Your task to perform on an android device: Show me some nice wallpapers for my desktop Image 0: 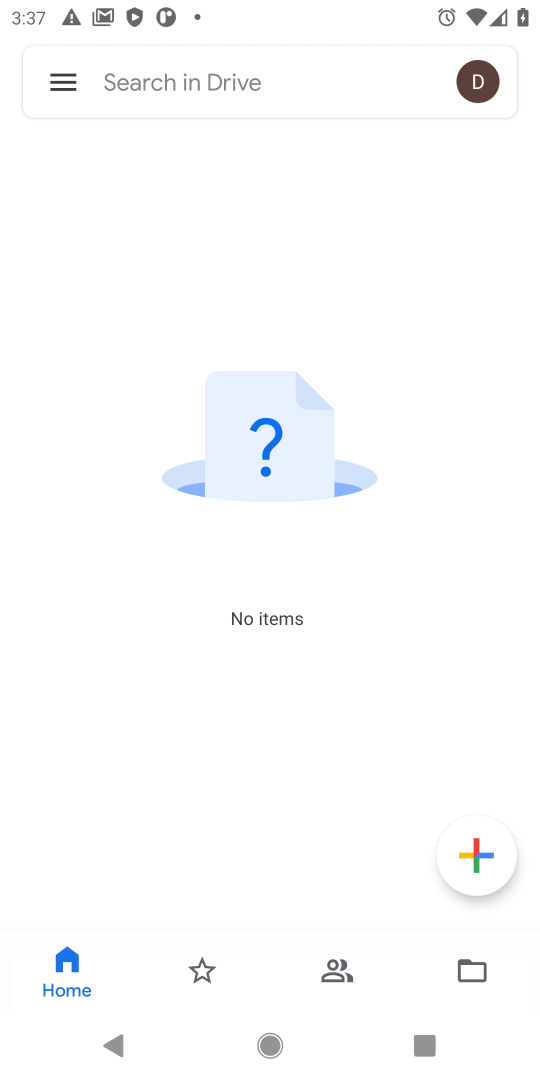
Step 0: press home button
Your task to perform on an android device: Show me some nice wallpapers for my desktop Image 1: 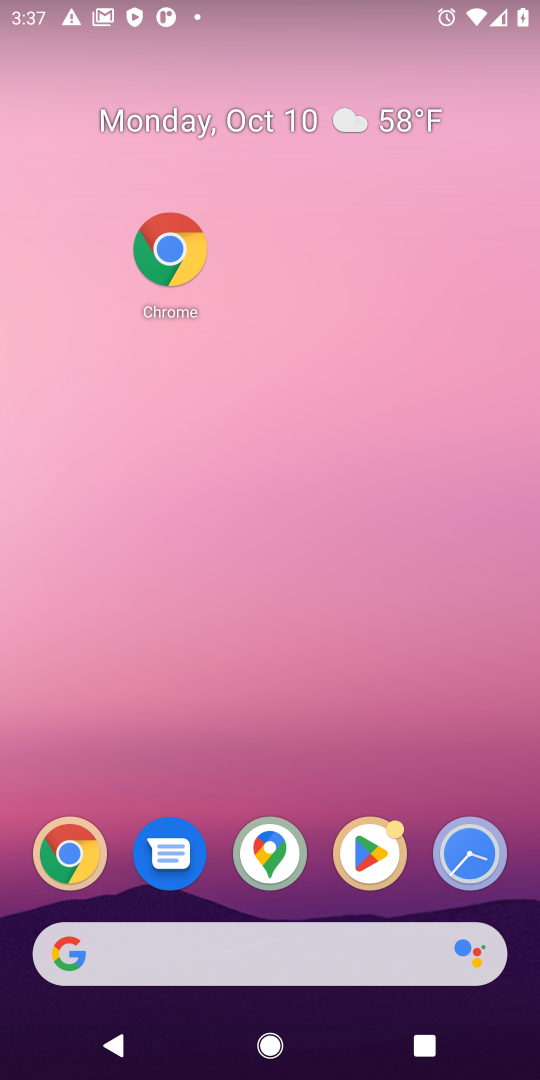
Step 1: click (52, 852)
Your task to perform on an android device: Show me some nice wallpapers for my desktop Image 2: 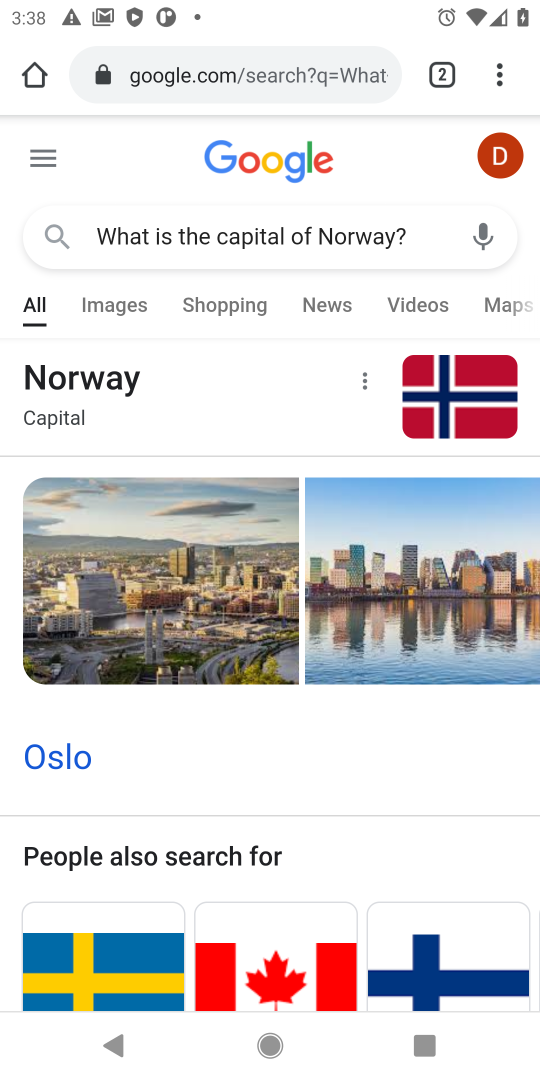
Step 2: click (279, 52)
Your task to perform on an android device: Show me some nice wallpapers for my desktop Image 3: 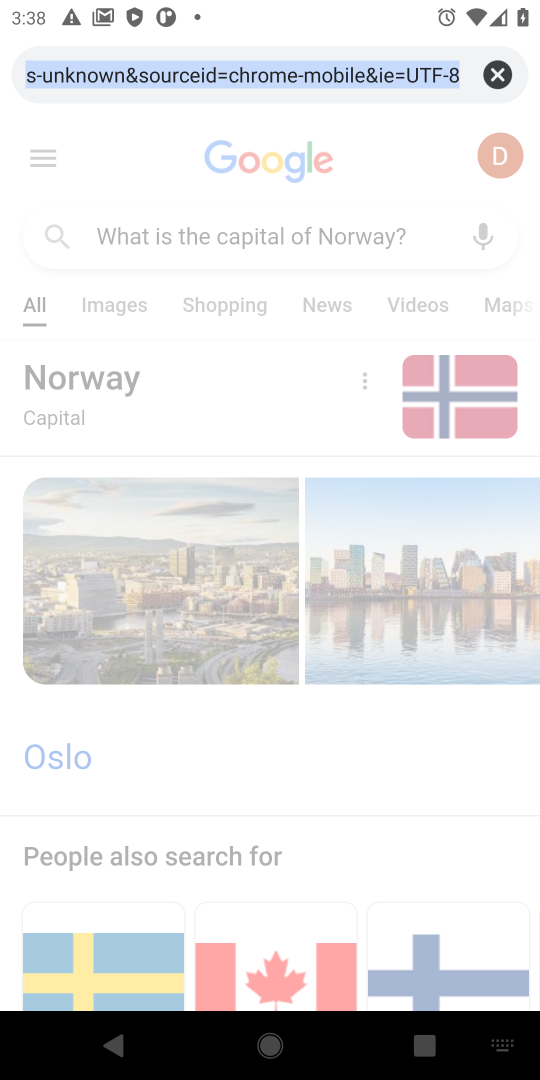
Step 3: type "Show me some nice wallpapers for my desktop"
Your task to perform on an android device: Show me some nice wallpapers for my desktop Image 4: 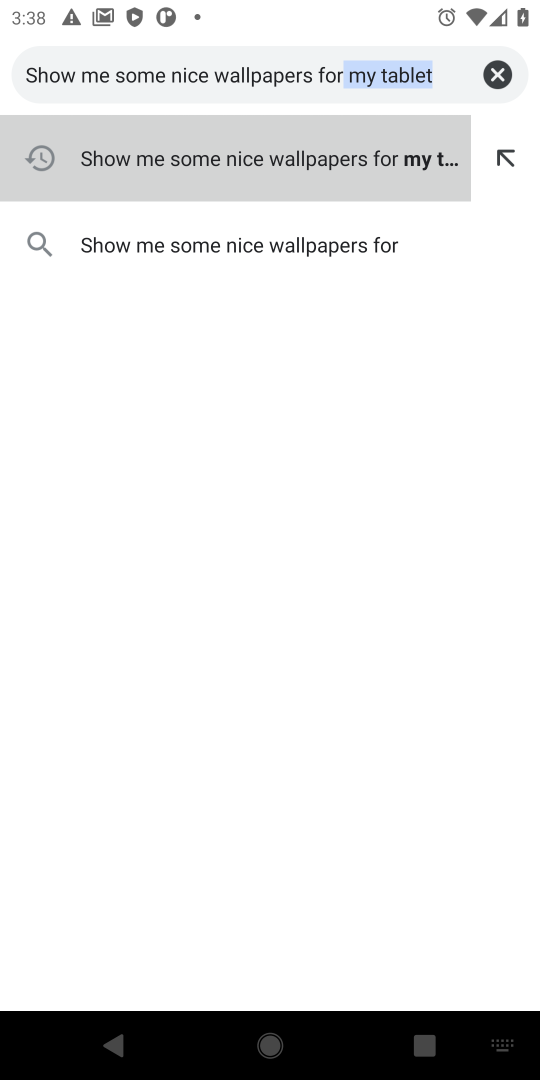
Step 4: type "desktop"
Your task to perform on an android device: Show me some nice wallpapers for my desktop Image 5: 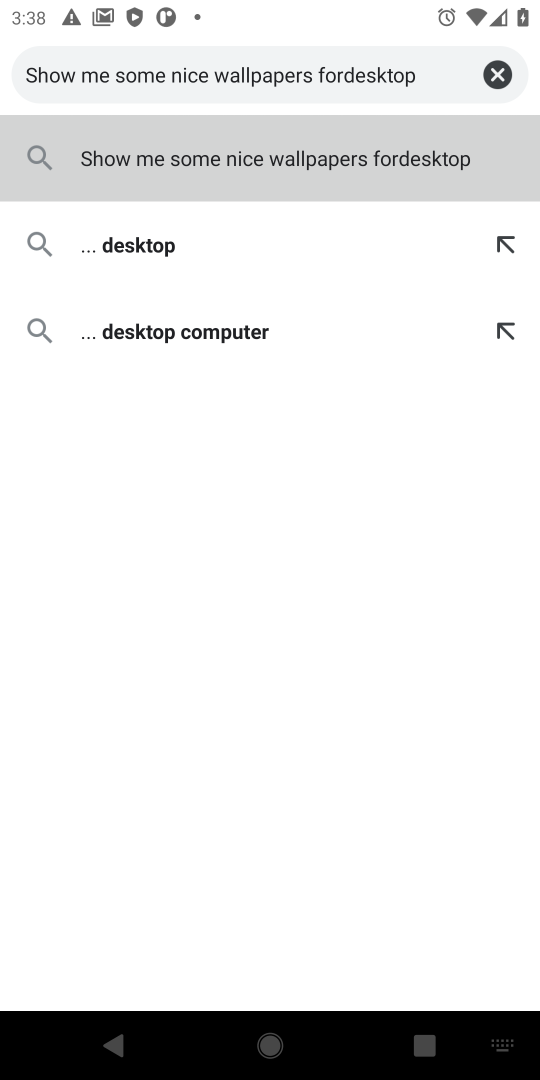
Step 5: click (293, 146)
Your task to perform on an android device: Show me some nice wallpapers for my desktop Image 6: 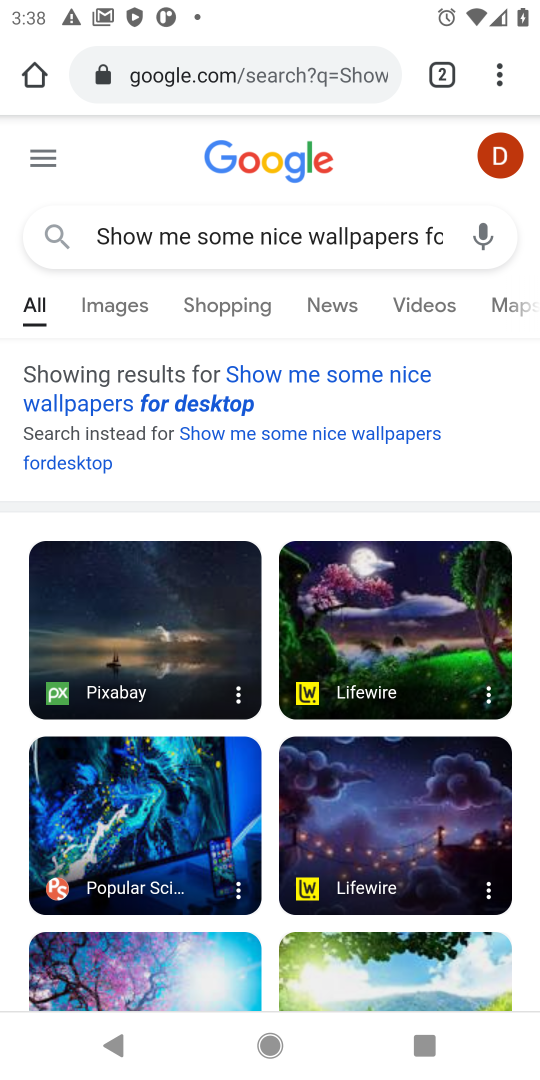
Step 6: task complete